Your task to perform on an android device: turn on sleep mode Image 0: 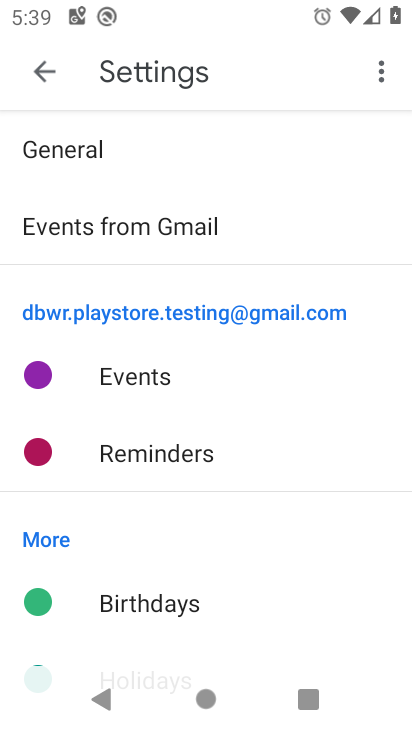
Step 0: press home button
Your task to perform on an android device: turn on sleep mode Image 1: 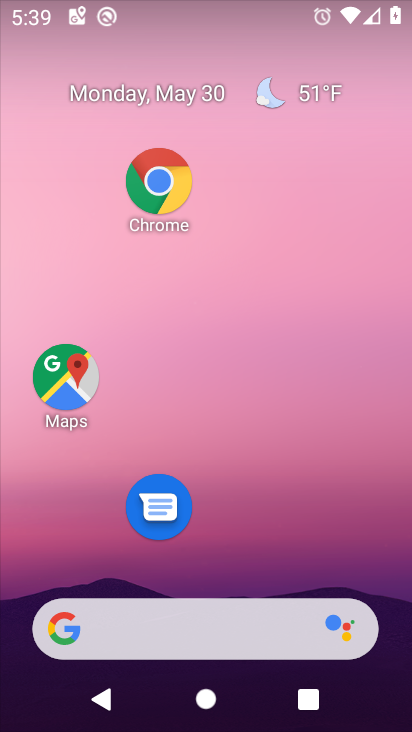
Step 1: drag from (368, 572) to (294, 4)
Your task to perform on an android device: turn on sleep mode Image 2: 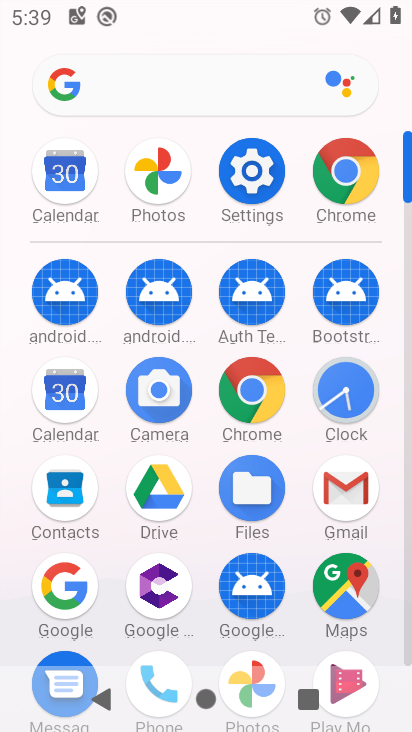
Step 2: click (263, 199)
Your task to perform on an android device: turn on sleep mode Image 3: 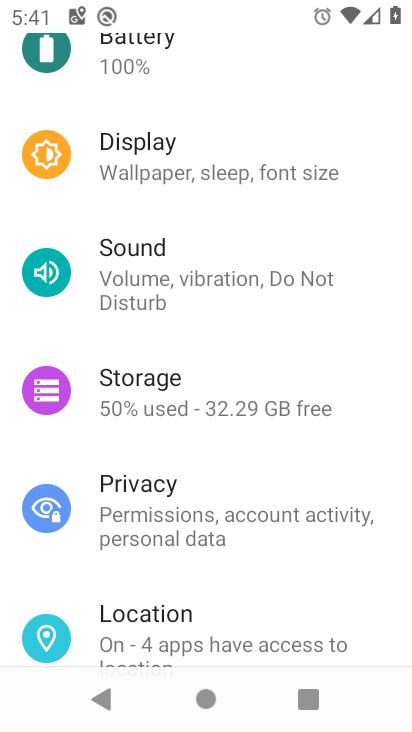
Step 3: click (122, 143)
Your task to perform on an android device: turn on sleep mode Image 4: 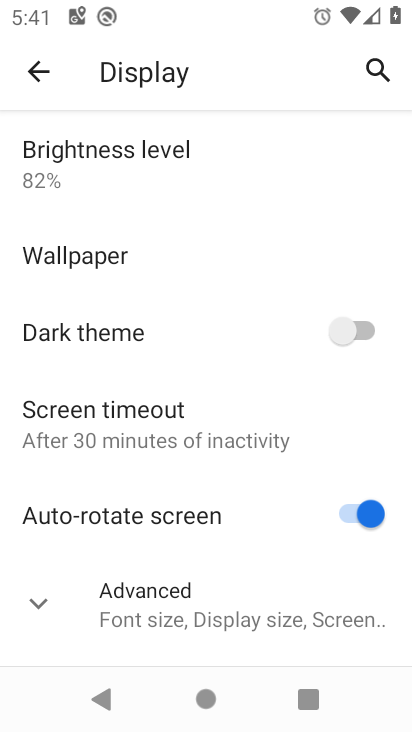
Step 4: task complete